Your task to perform on an android device: Open display settings Image 0: 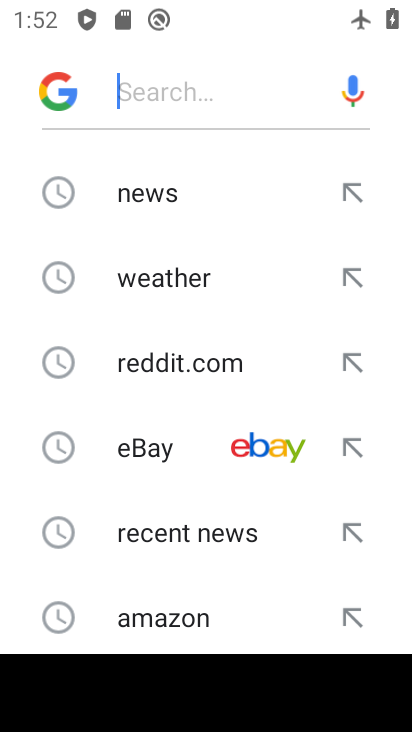
Step 0: press home button
Your task to perform on an android device: Open display settings Image 1: 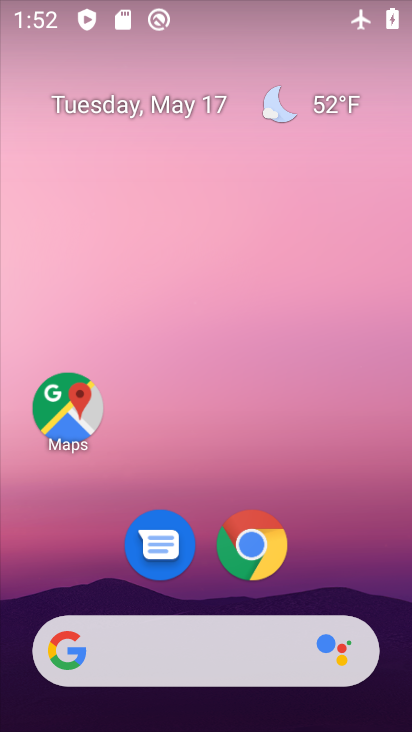
Step 1: drag from (383, 558) to (378, 227)
Your task to perform on an android device: Open display settings Image 2: 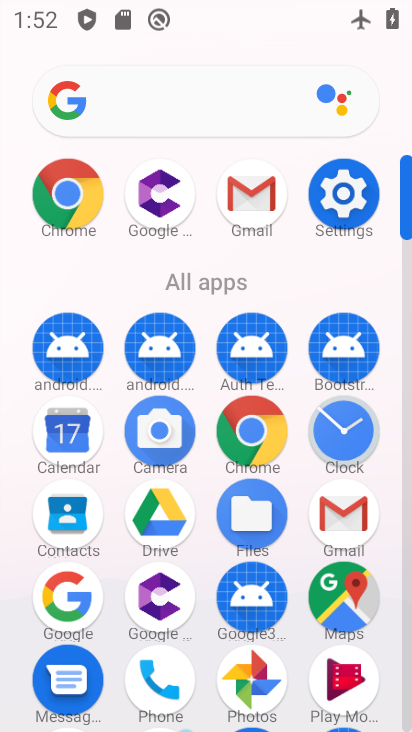
Step 2: click (339, 203)
Your task to perform on an android device: Open display settings Image 3: 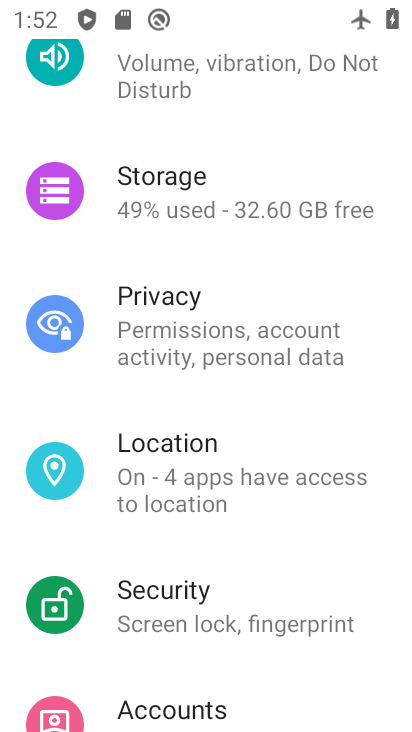
Step 3: drag from (372, 591) to (372, 401)
Your task to perform on an android device: Open display settings Image 4: 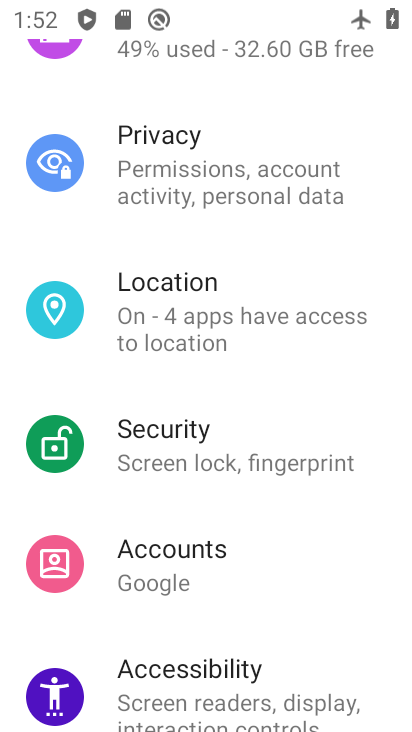
Step 4: drag from (358, 622) to (345, 432)
Your task to perform on an android device: Open display settings Image 5: 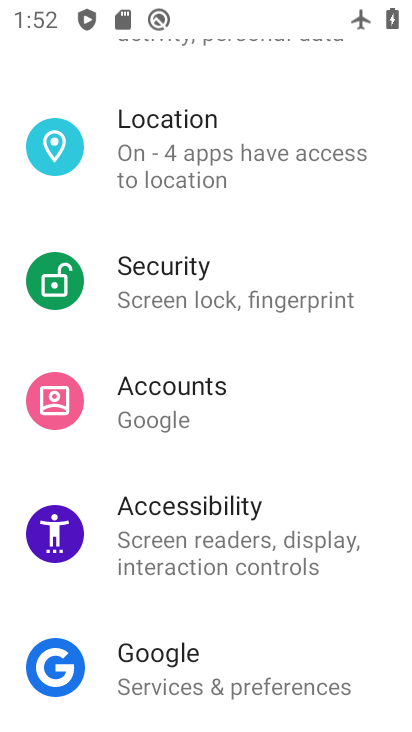
Step 5: drag from (339, 610) to (338, 422)
Your task to perform on an android device: Open display settings Image 6: 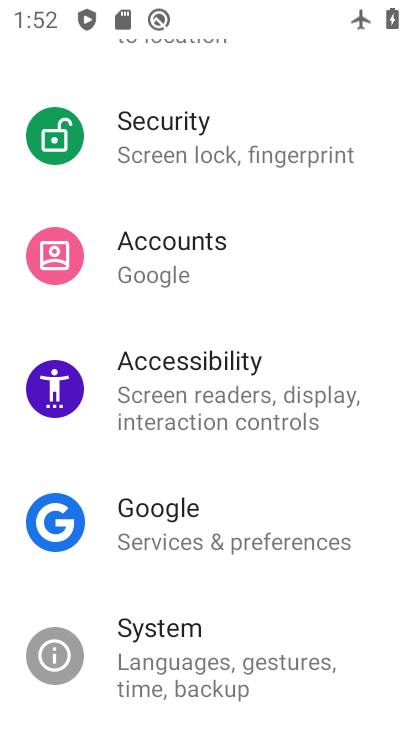
Step 6: drag from (331, 601) to (334, 444)
Your task to perform on an android device: Open display settings Image 7: 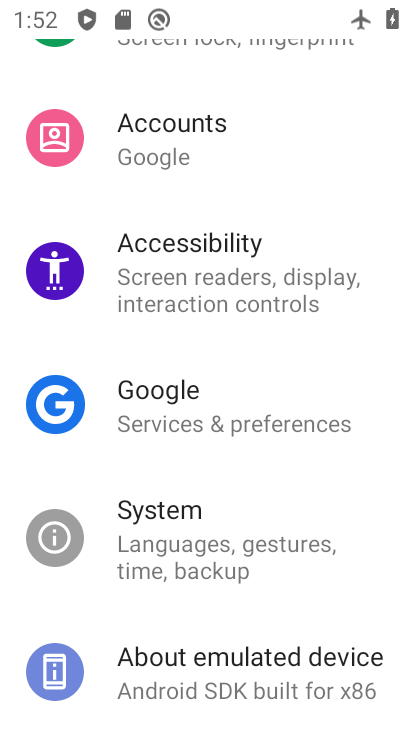
Step 7: drag from (325, 599) to (329, 499)
Your task to perform on an android device: Open display settings Image 8: 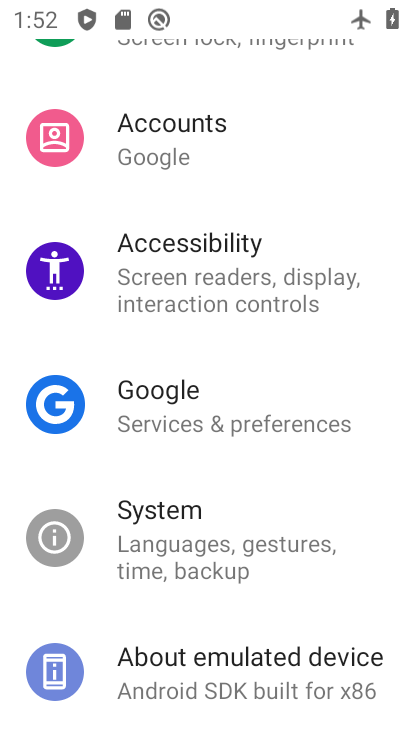
Step 8: drag from (329, 564) to (335, 522)
Your task to perform on an android device: Open display settings Image 9: 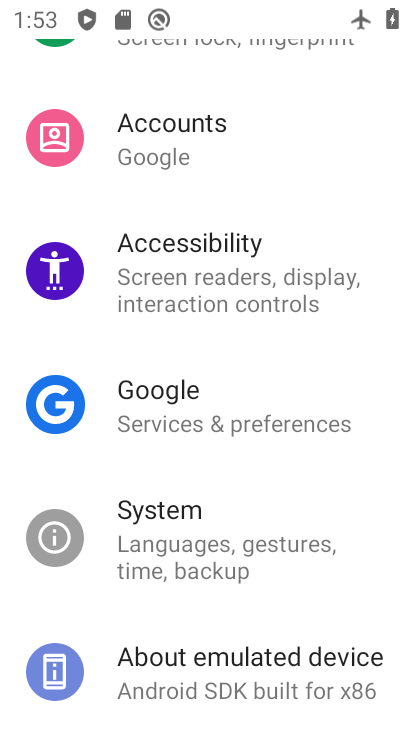
Step 9: drag from (365, 373) to (367, 436)
Your task to perform on an android device: Open display settings Image 10: 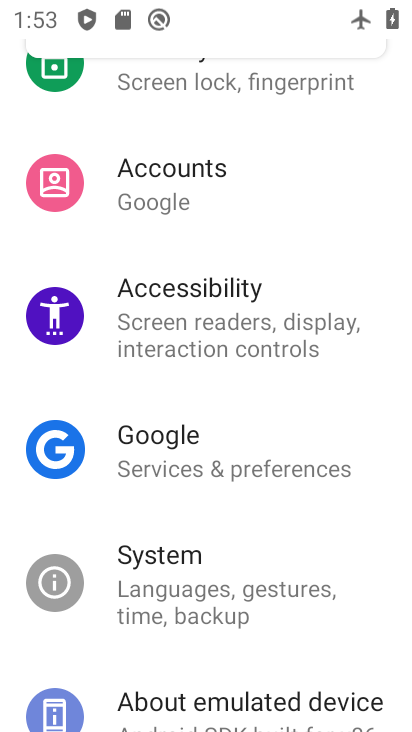
Step 10: drag from (333, 612) to (342, 507)
Your task to perform on an android device: Open display settings Image 11: 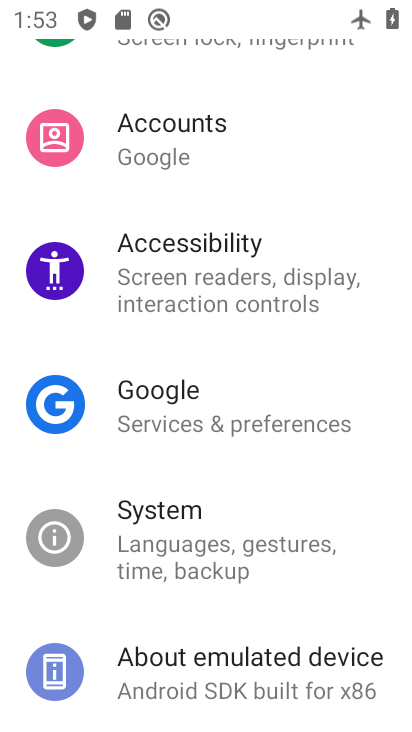
Step 11: drag from (334, 645) to (338, 501)
Your task to perform on an android device: Open display settings Image 12: 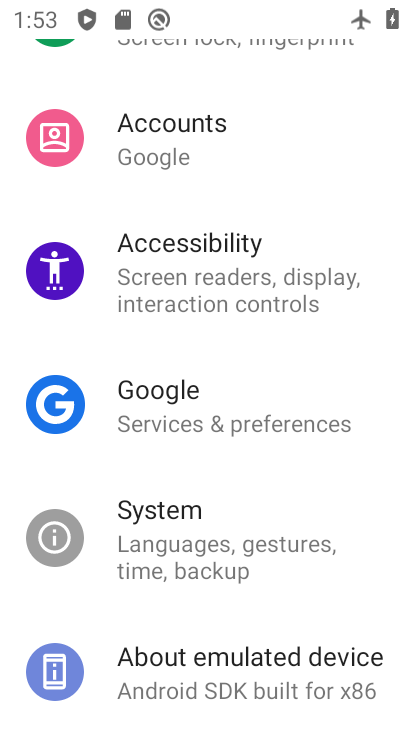
Step 12: drag from (352, 461) to (354, 577)
Your task to perform on an android device: Open display settings Image 13: 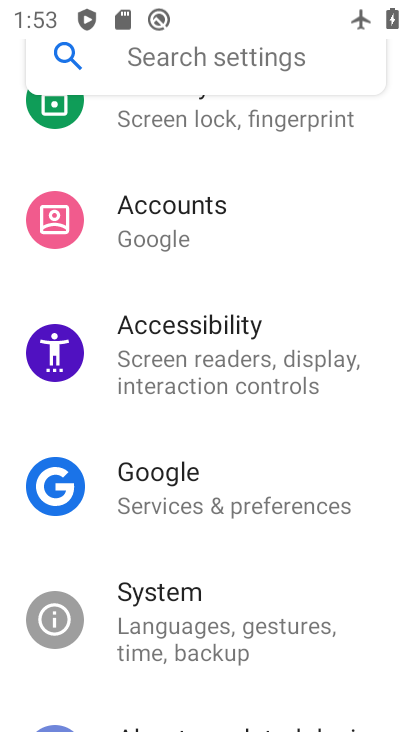
Step 13: drag from (363, 410) to (366, 525)
Your task to perform on an android device: Open display settings Image 14: 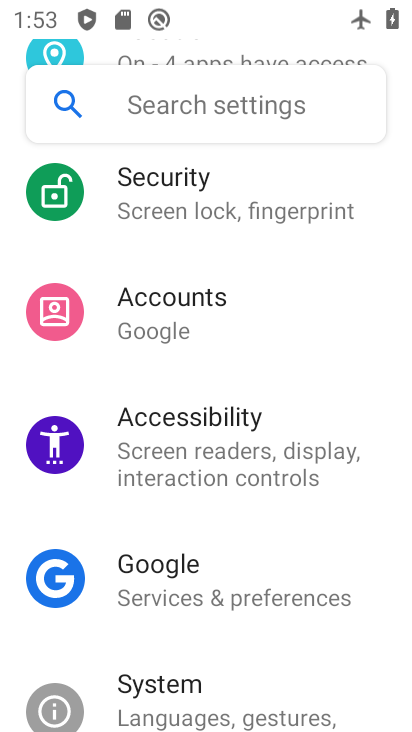
Step 14: drag from (395, 366) to (400, 534)
Your task to perform on an android device: Open display settings Image 15: 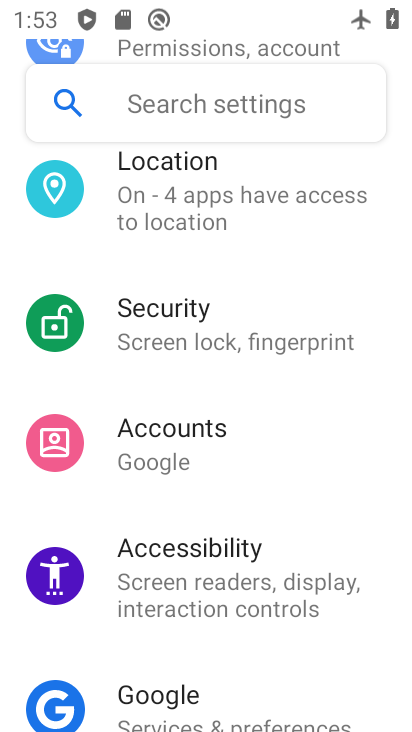
Step 15: drag from (395, 341) to (394, 470)
Your task to perform on an android device: Open display settings Image 16: 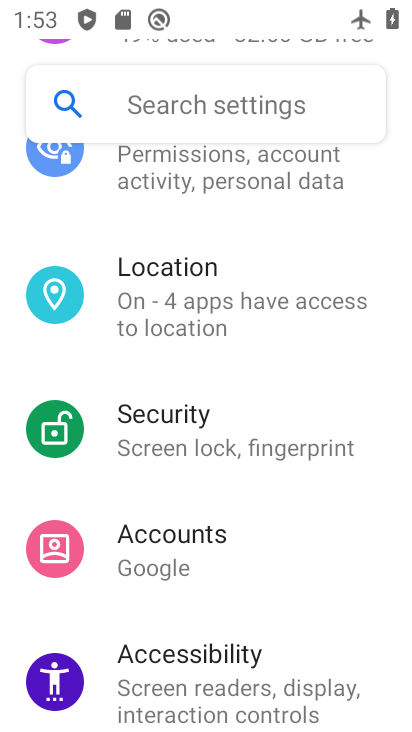
Step 16: drag from (389, 320) to (386, 416)
Your task to perform on an android device: Open display settings Image 17: 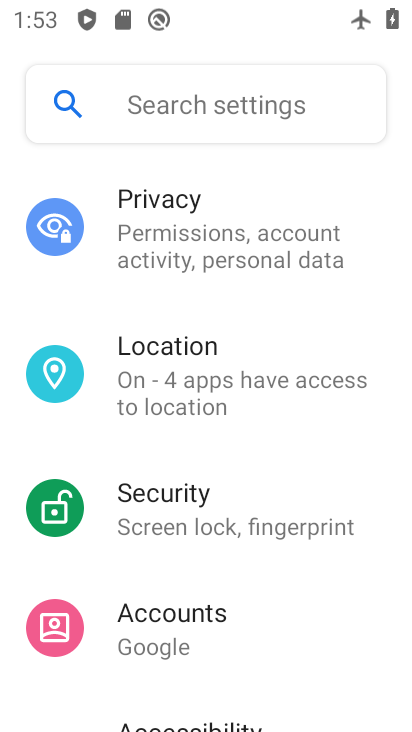
Step 17: drag from (374, 323) to (377, 506)
Your task to perform on an android device: Open display settings Image 18: 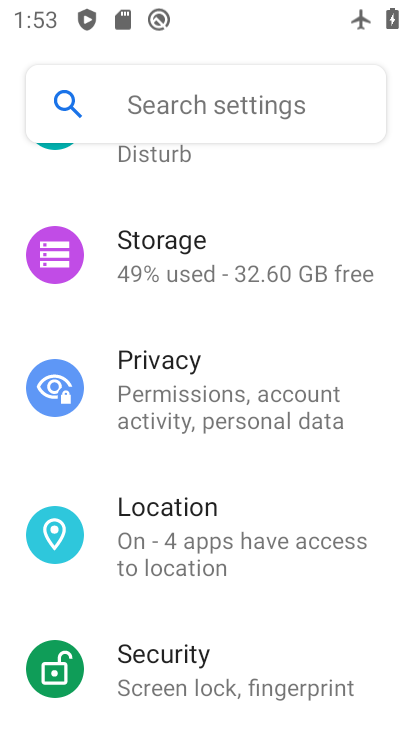
Step 18: drag from (380, 307) to (392, 476)
Your task to perform on an android device: Open display settings Image 19: 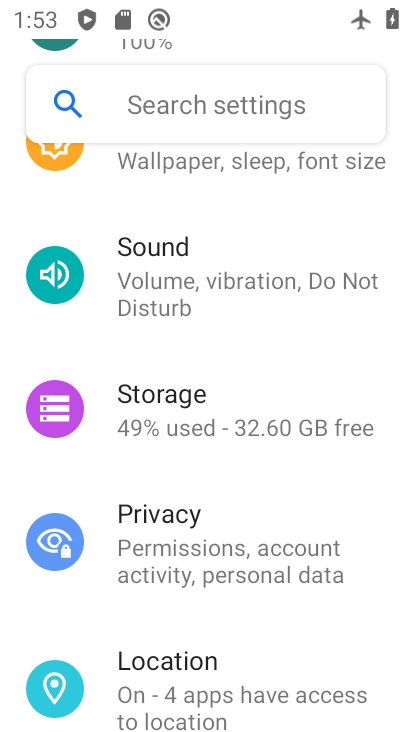
Step 19: drag from (384, 232) to (381, 444)
Your task to perform on an android device: Open display settings Image 20: 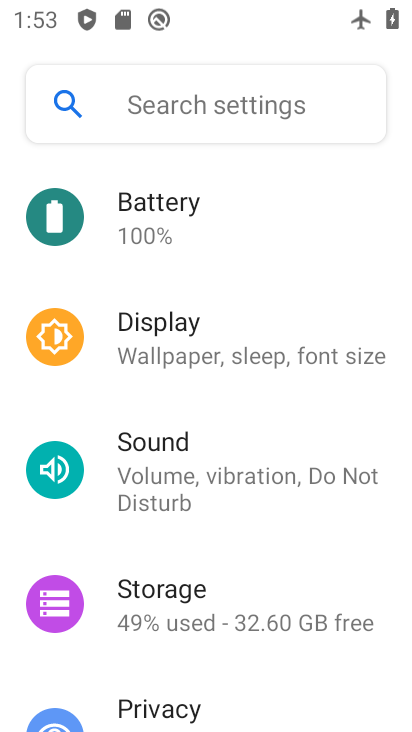
Step 20: click (296, 333)
Your task to perform on an android device: Open display settings Image 21: 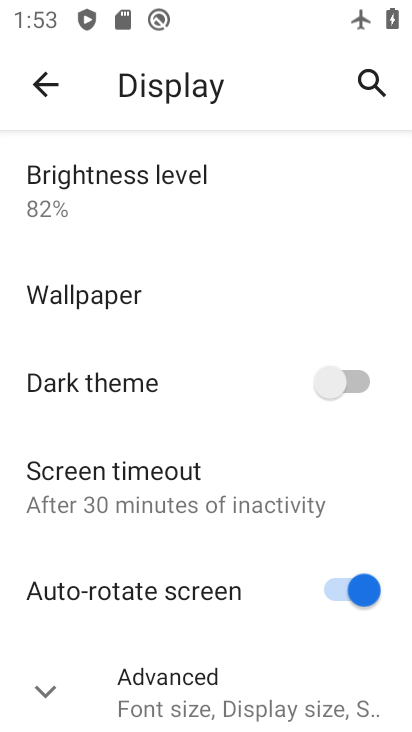
Step 21: click (165, 675)
Your task to perform on an android device: Open display settings Image 22: 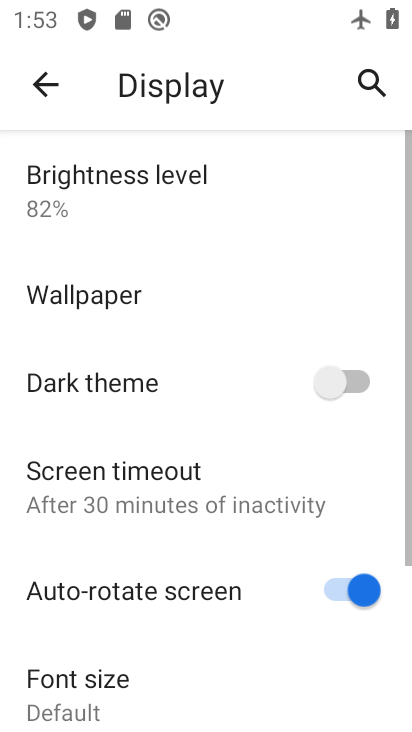
Step 22: task complete